Your task to perform on an android device: turn on wifi Image 0: 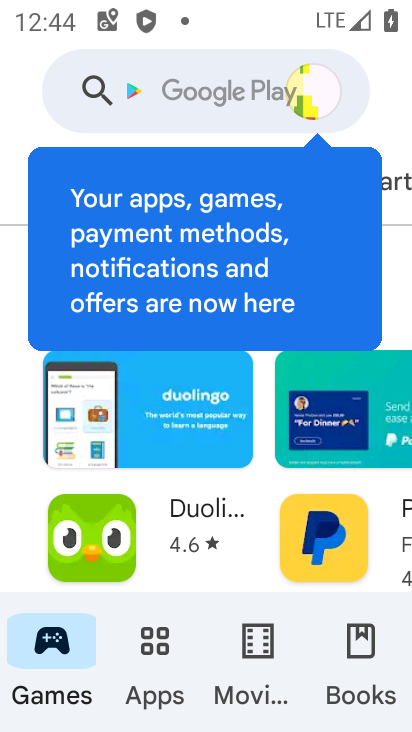
Step 0: press home button
Your task to perform on an android device: turn on wifi Image 1: 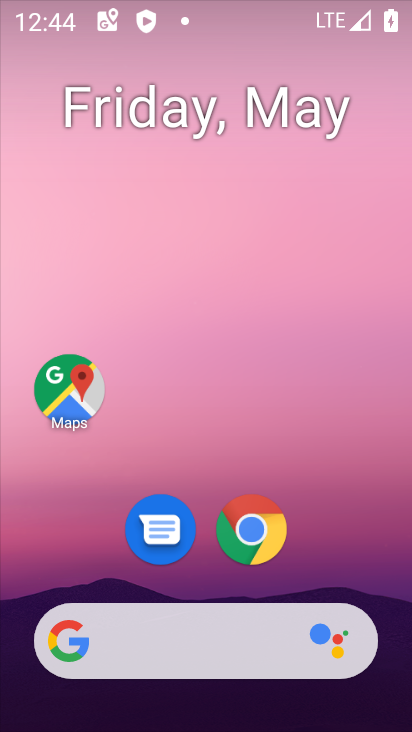
Step 1: drag from (329, 541) to (86, 126)
Your task to perform on an android device: turn on wifi Image 2: 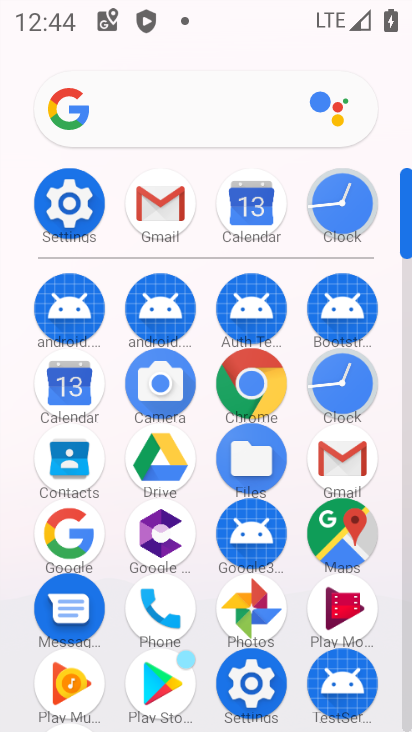
Step 2: click (86, 218)
Your task to perform on an android device: turn on wifi Image 3: 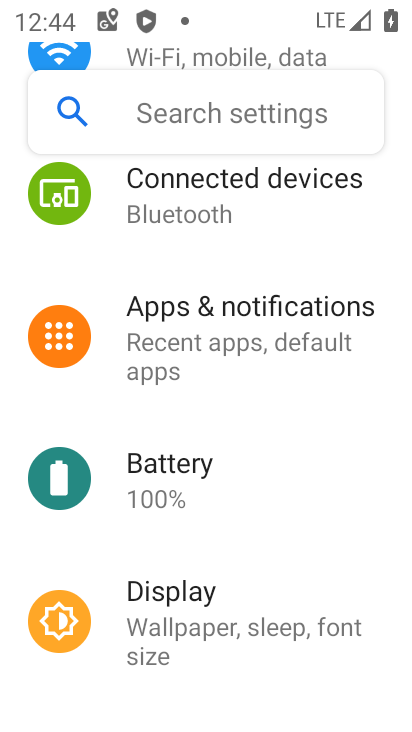
Step 3: drag from (267, 248) to (239, 496)
Your task to perform on an android device: turn on wifi Image 4: 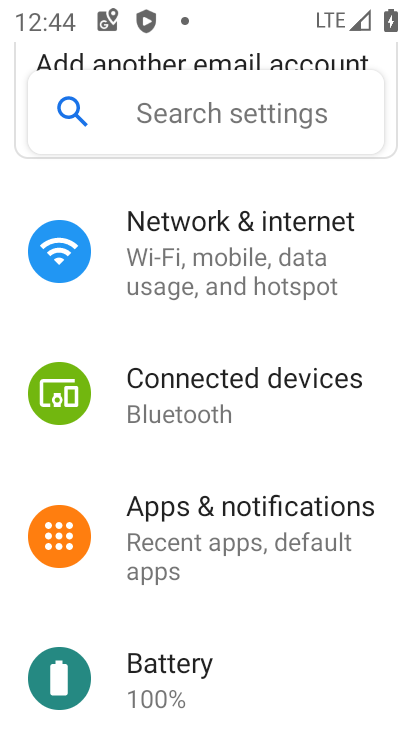
Step 4: click (183, 266)
Your task to perform on an android device: turn on wifi Image 5: 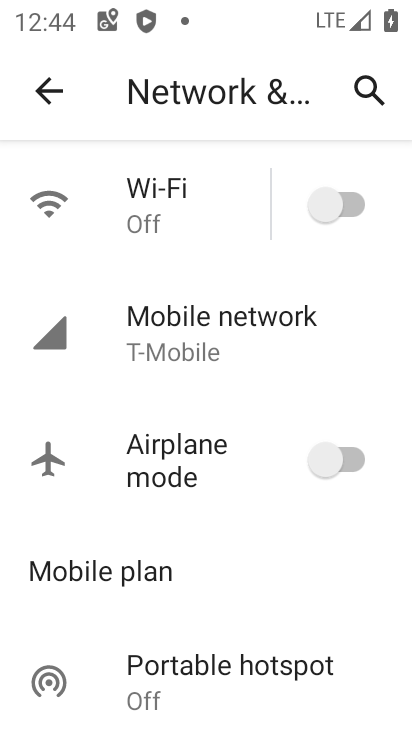
Step 5: click (342, 200)
Your task to perform on an android device: turn on wifi Image 6: 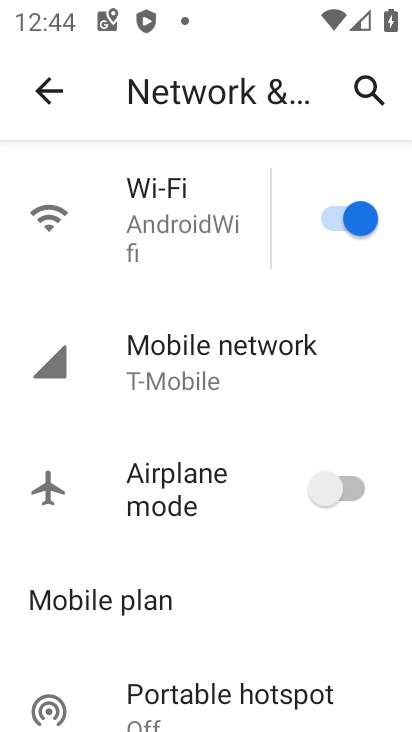
Step 6: task complete